Your task to perform on an android device: Search for sushi restaurants on Maps Image 0: 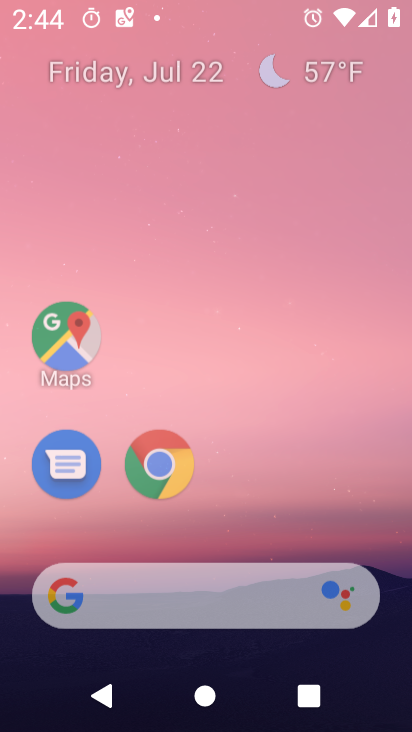
Step 0: press home button
Your task to perform on an android device: Search for sushi restaurants on Maps Image 1: 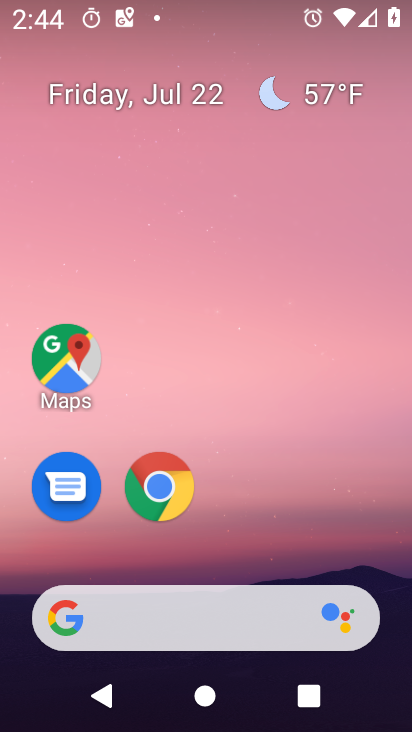
Step 1: drag from (357, 531) to (350, 92)
Your task to perform on an android device: Search for sushi restaurants on Maps Image 2: 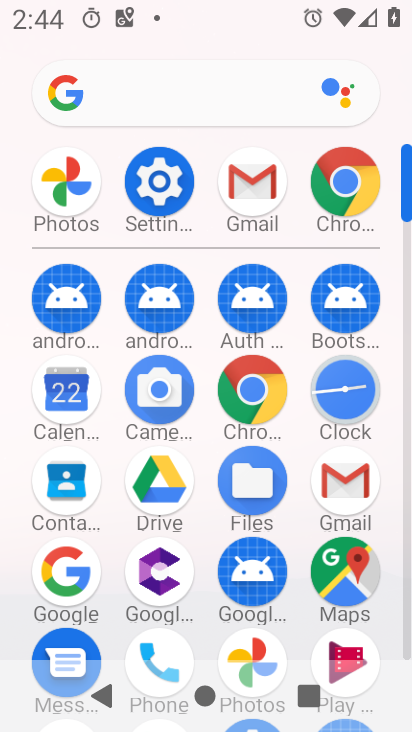
Step 2: click (349, 570)
Your task to perform on an android device: Search for sushi restaurants on Maps Image 3: 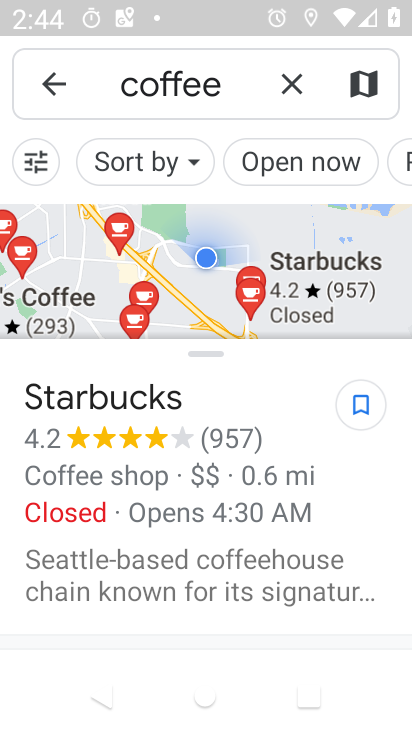
Step 3: press back button
Your task to perform on an android device: Search for sushi restaurants on Maps Image 4: 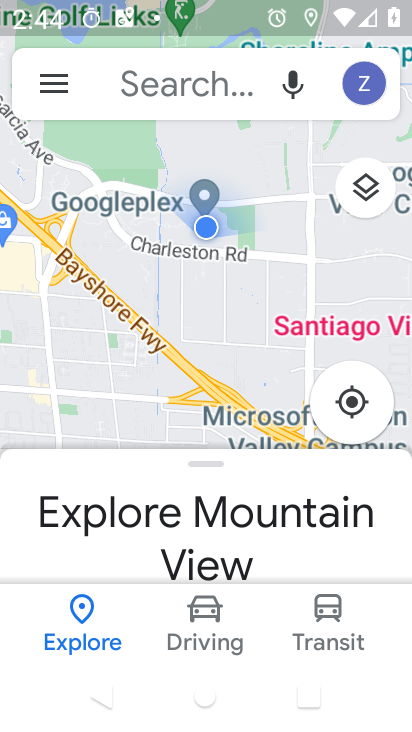
Step 4: click (199, 98)
Your task to perform on an android device: Search for sushi restaurants on Maps Image 5: 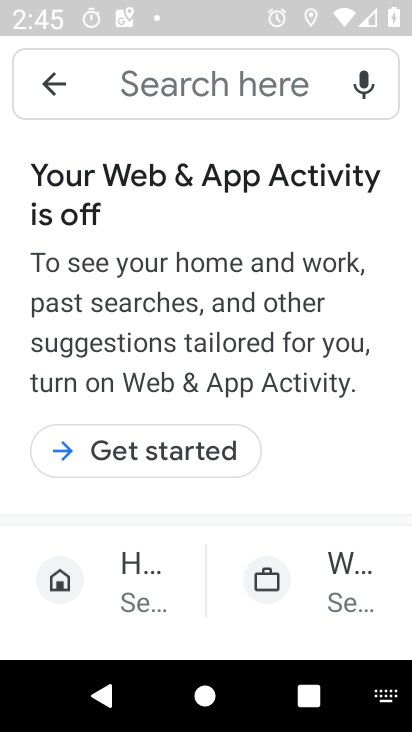
Step 5: type "sushi restaurants"
Your task to perform on an android device: Search for sushi restaurants on Maps Image 6: 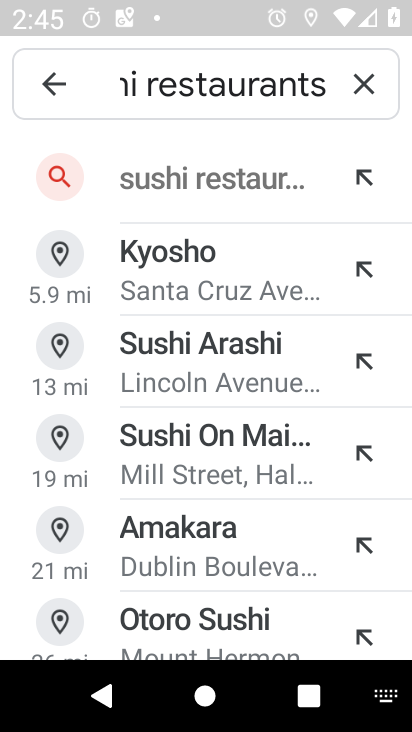
Step 6: click (292, 182)
Your task to perform on an android device: Search for sushi restaurants on Maps Image 7: 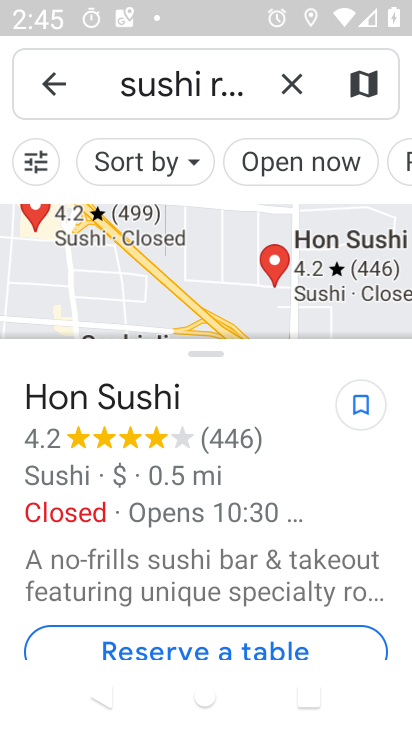
Step 7: task complete